Your task to perform on an android device: Add "macbook air" to the cart on amazon, then select checkout. Image 0: 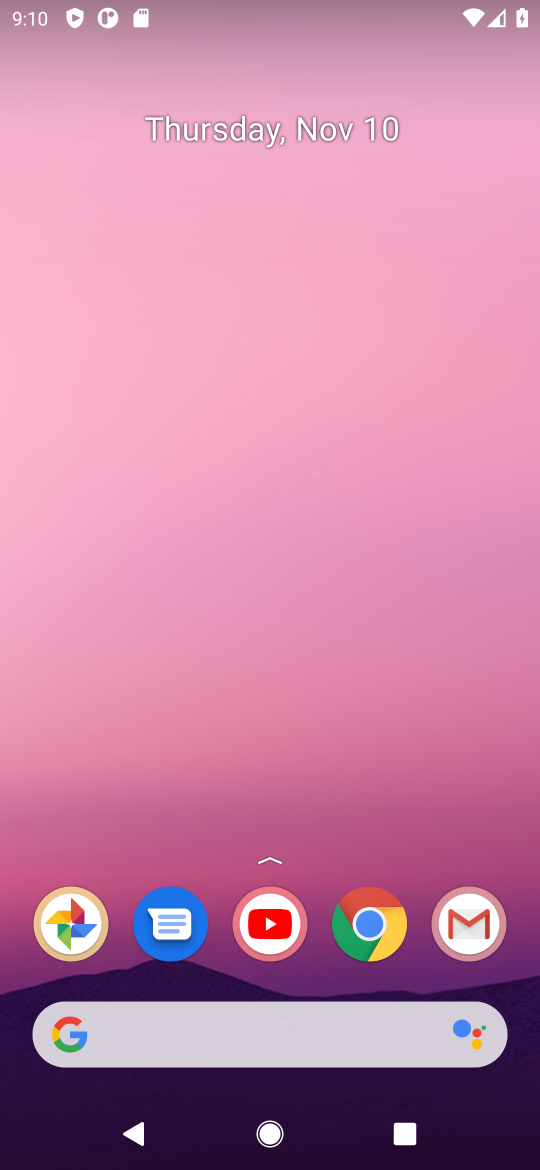
Step 0: click (366, 920)
Your task to perform on an android device: Add "macbook air" to the cart on amazon, then select checkout. Image 1: 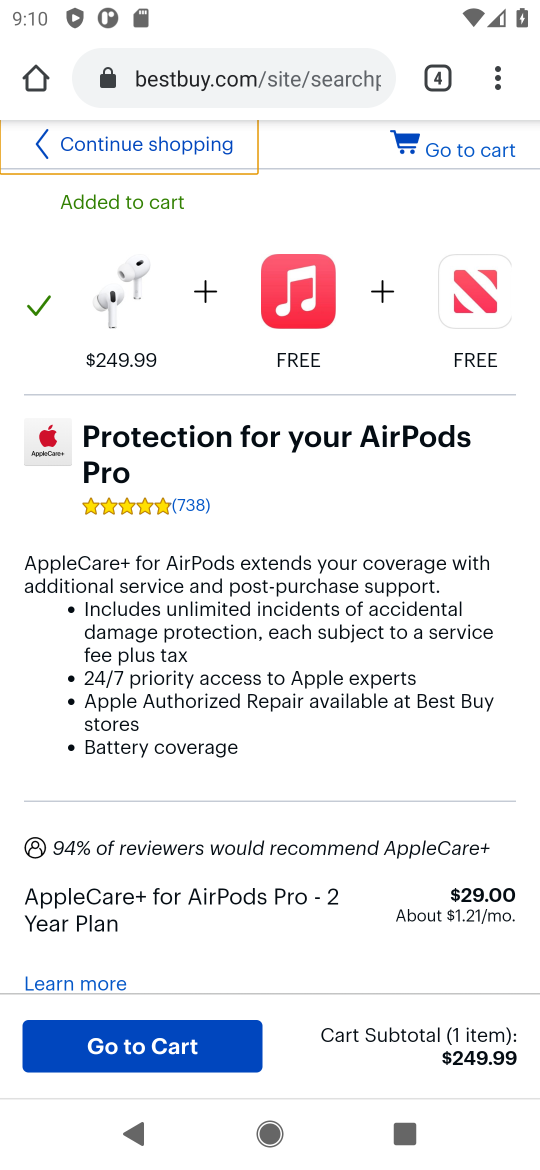
Step 1: click (191, 87)
Your task to perform on an android device: Add "macbook air" to the cart on amazon, then select checkout. Image 2: 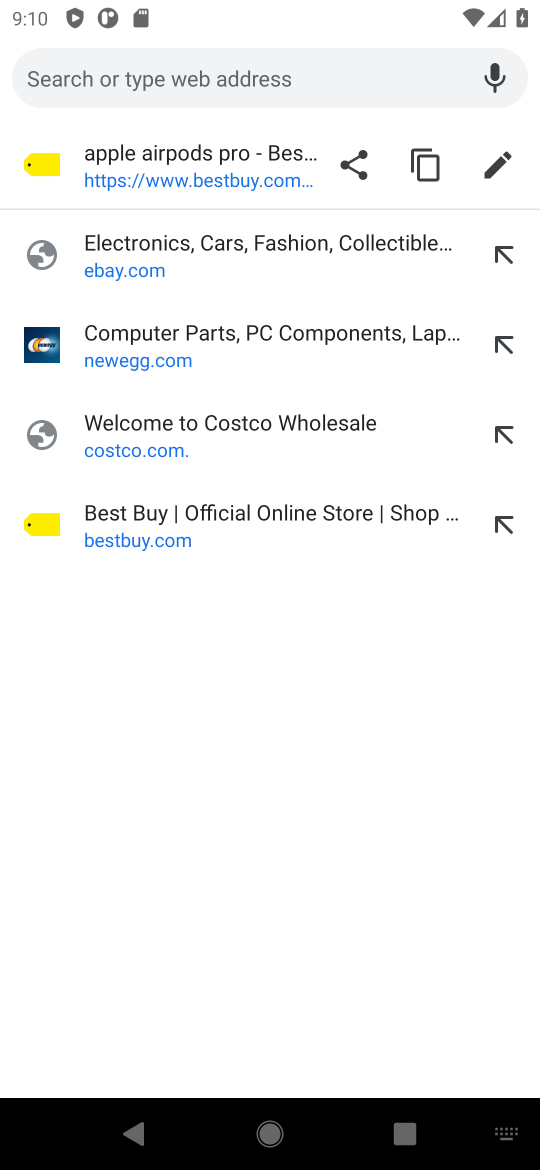
Step 2: type "amazon.com"
Your task to perform on an android device: Add "macbook air" to the cart on amazon, then select checkout. Image 3: 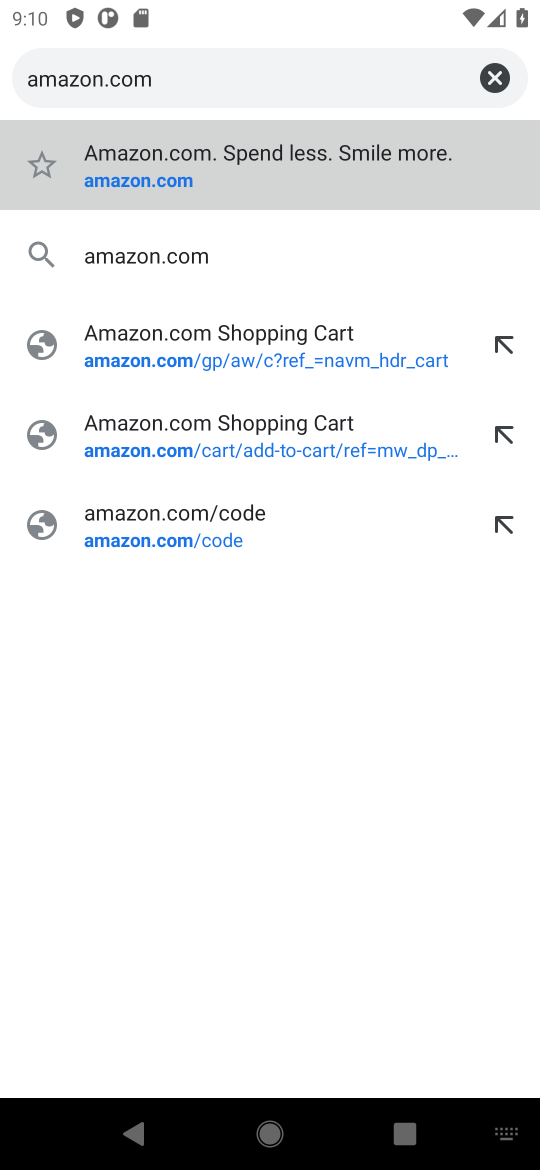
Step 3: click (137, 187)
Your task to perform on an android device: Add "macbook air" to the cart on amazon, then select checkout. Image 4: 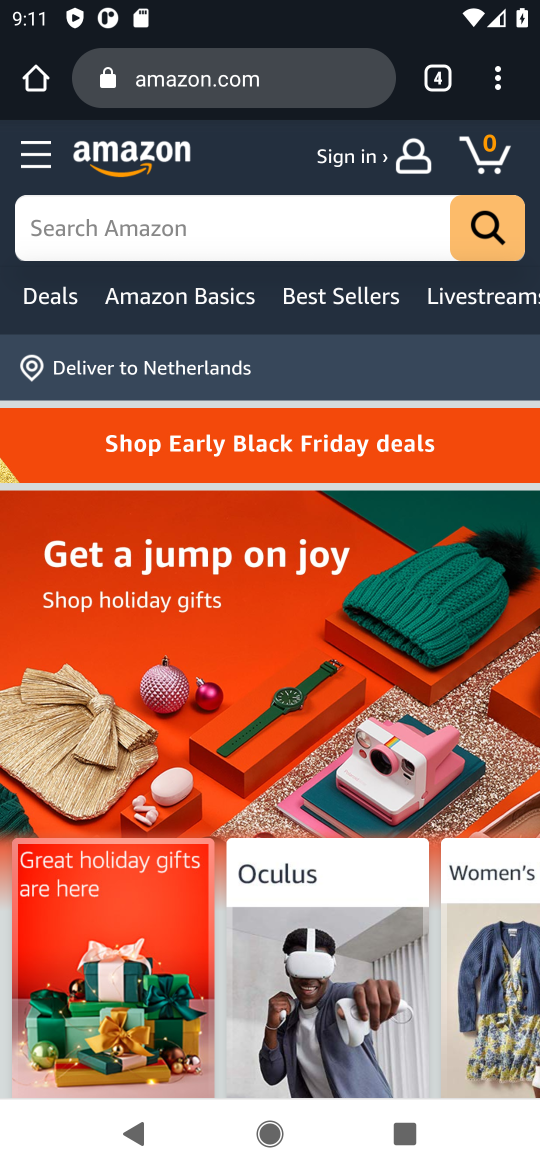
Step 4: click (190, 214)
Your task to perform on an android device: Add "macbook air" to the cart on amazon, then select checkout. Image 5: 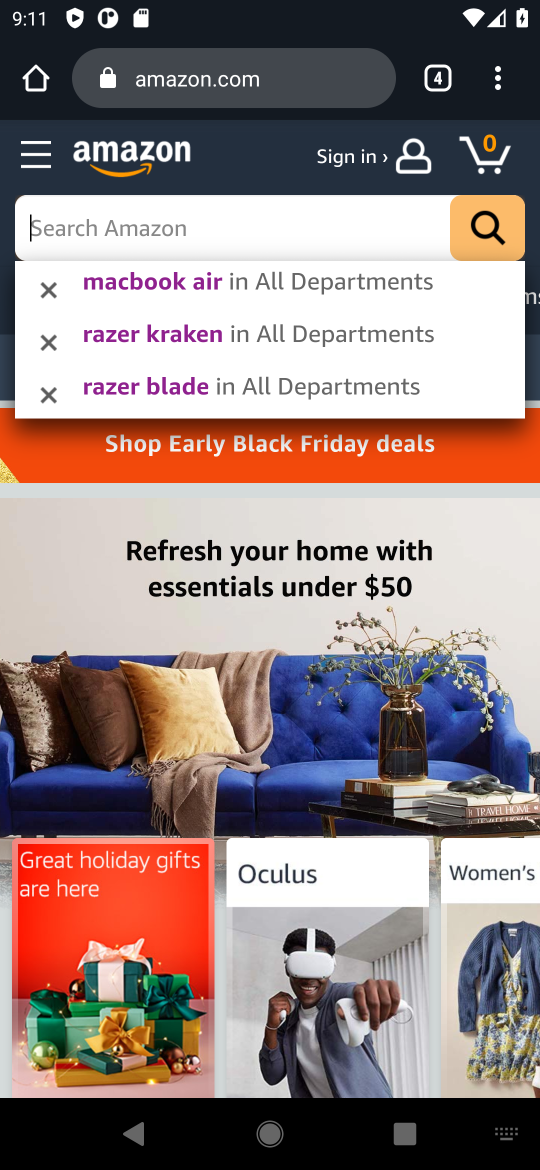
Step 5: type "macbook air"
Your task to perform on an android device: Add "macbook air" to the cart on amazon, then select checkout. Image 6: 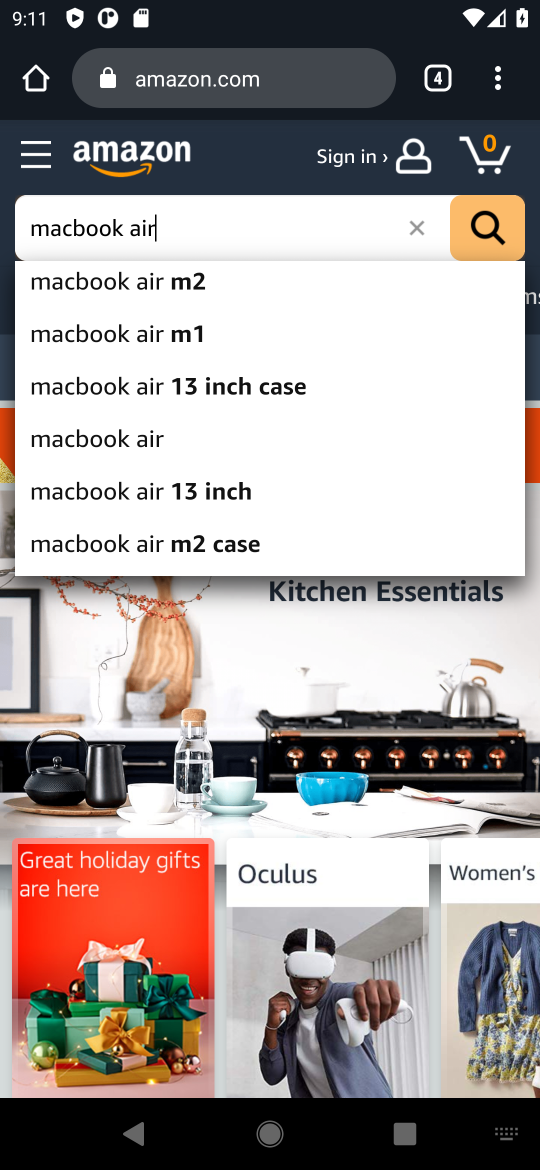
Step 6: click (99, 445)
Your task to perform on an android device: Add "macbook air" to the cart on amazon, then select checkout. Image 7: 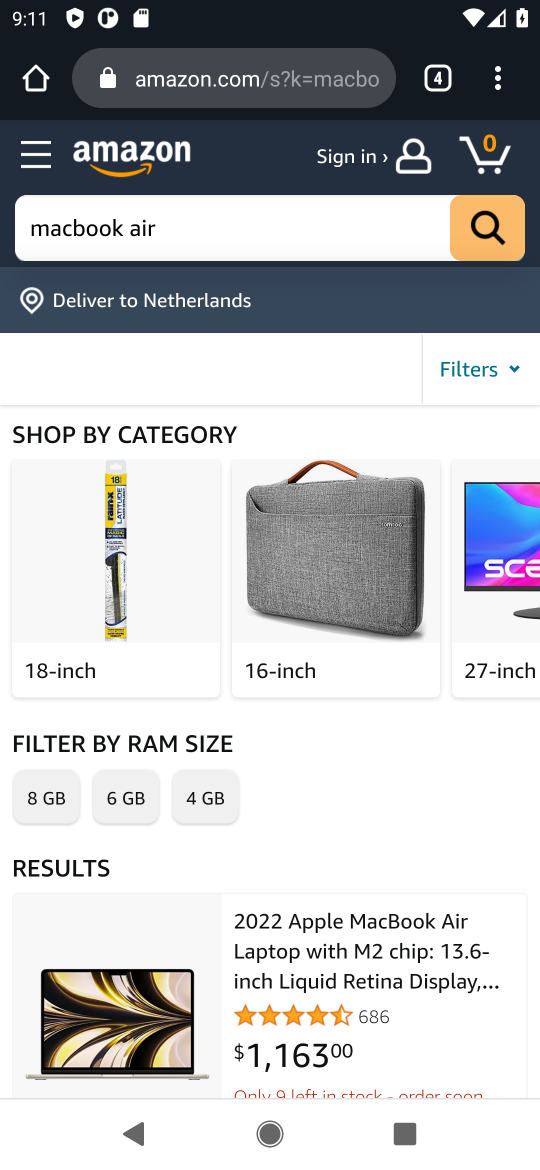
Step 7: drag from (270, 879) to (276, 513)
Your task to perform on an android device: Add "macbook air" to the cart on amazon, then select checkout. Image 8: 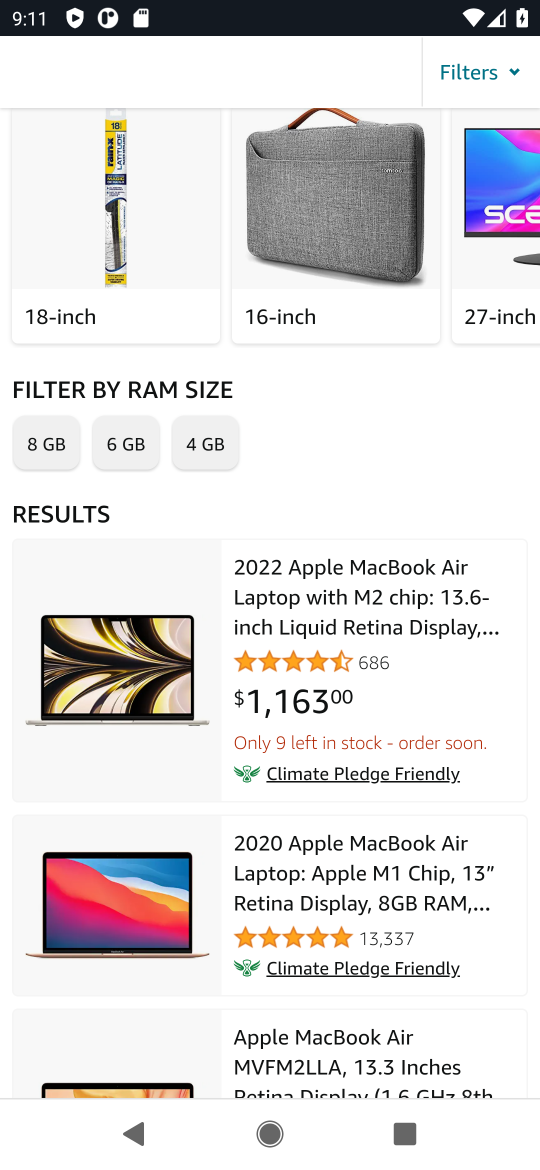
Step 8: drag from (210, 837) to (221, 501)
Your task to perform on an android device: Add "macbook air" to the cart on amazon, then select checkout. Image 9: 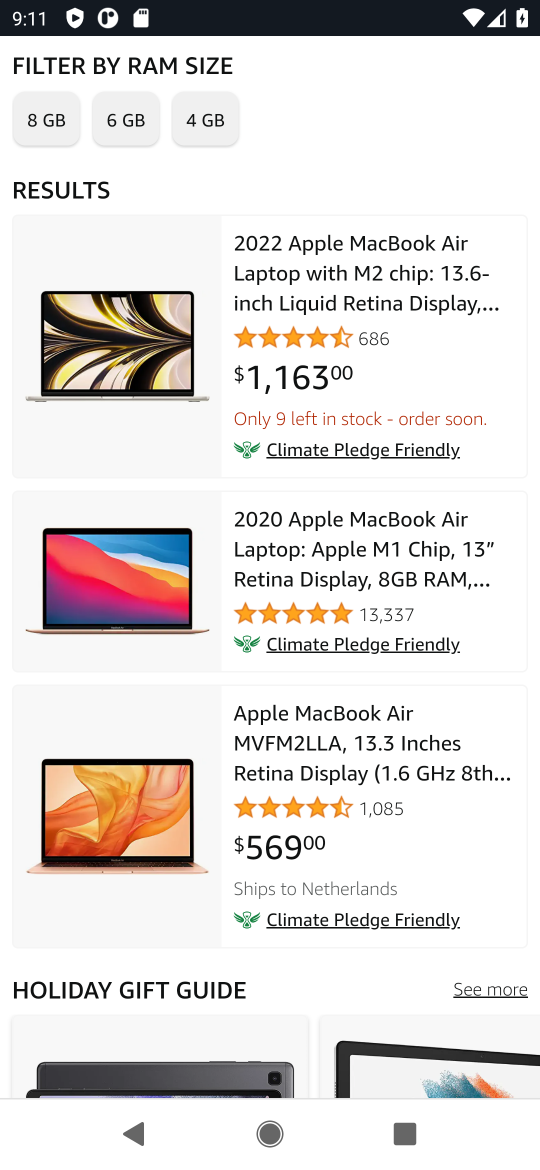
Step 9: drag from (181, 844) to (176, 436)
Your task to perform on an android device: Add "macbook air" to the cart on amazon, then select checkout. Image 10: 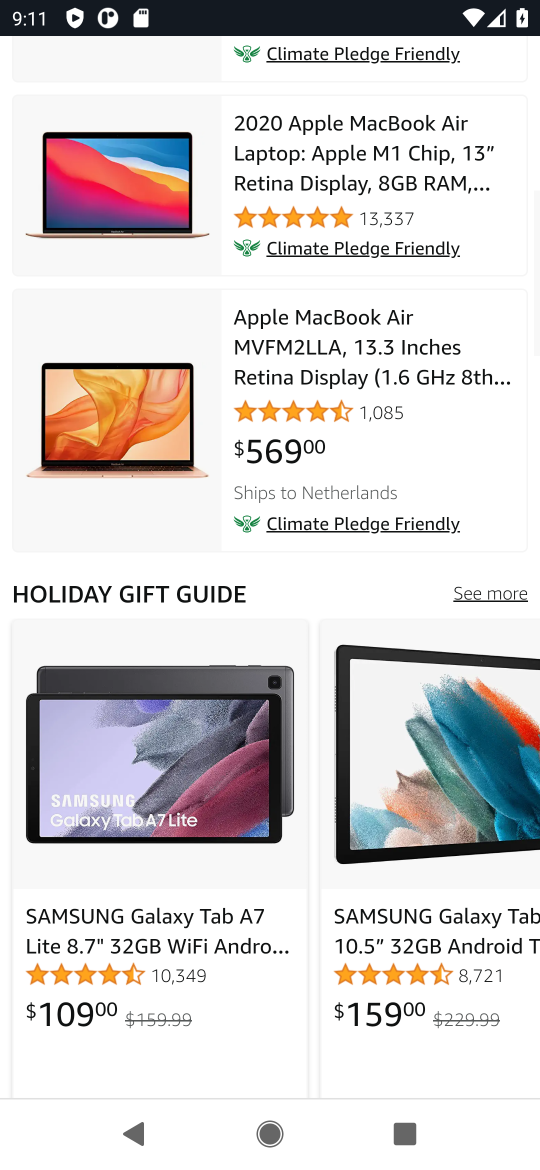
Step 10: drag from (180, 897) to (210, 417)
Your task to perform on an android device: Add "macbook air" to the cart on amazon, then select checkout. Image 11: 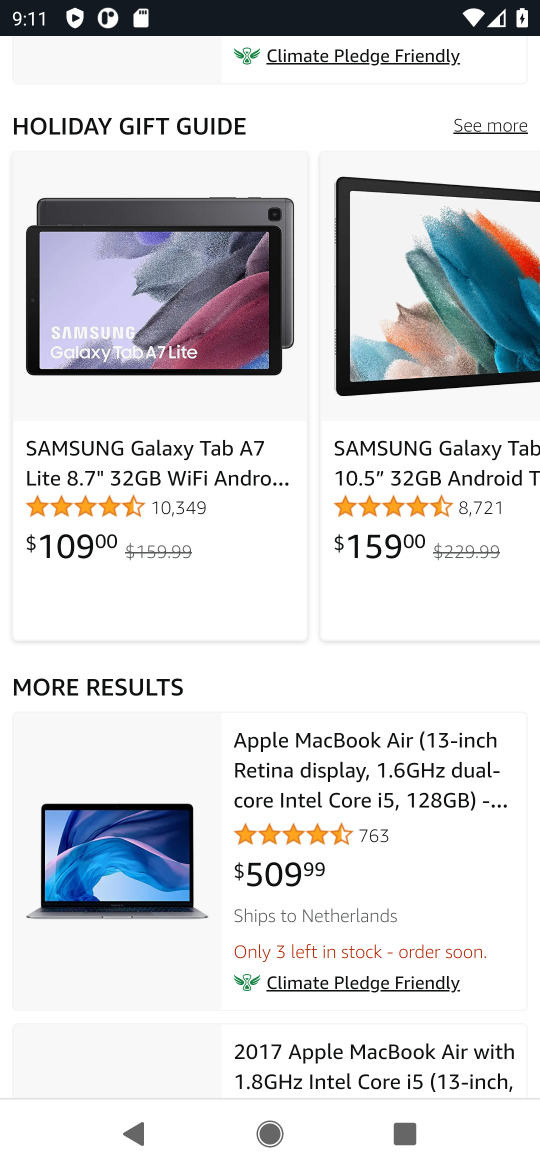
Step 11: click (206, 851)
Your task to perform on an android device: Add "macbook air" to the cart on amazon, then select checkout. Image 12: 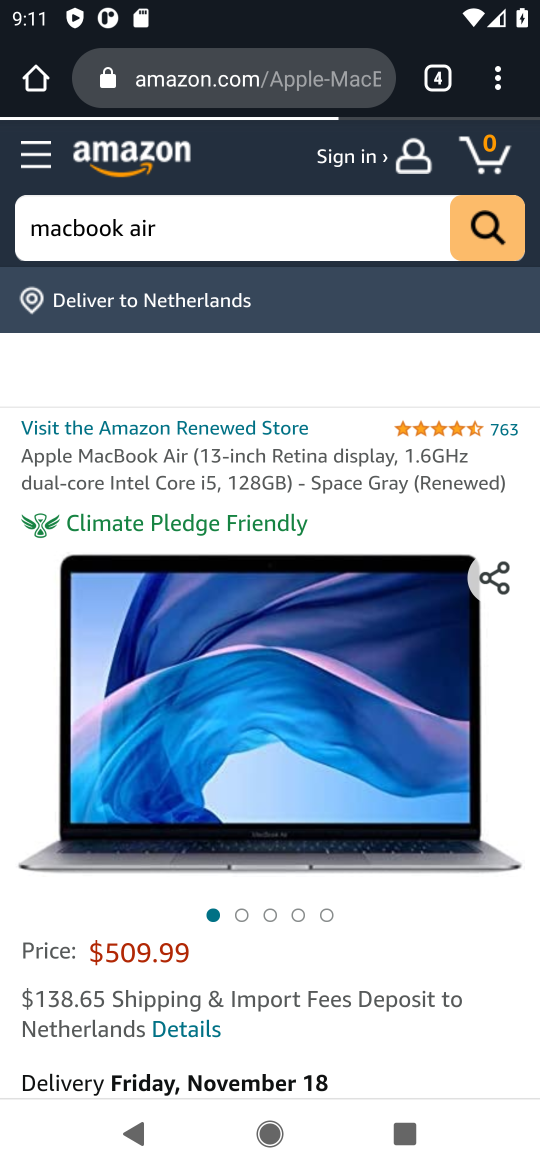
Step 12: drag from (209, 863) to (168, 340)
Your task to perform on an android device: Add "macbook air" to the cart on amazon, then select checkout. Image 13: 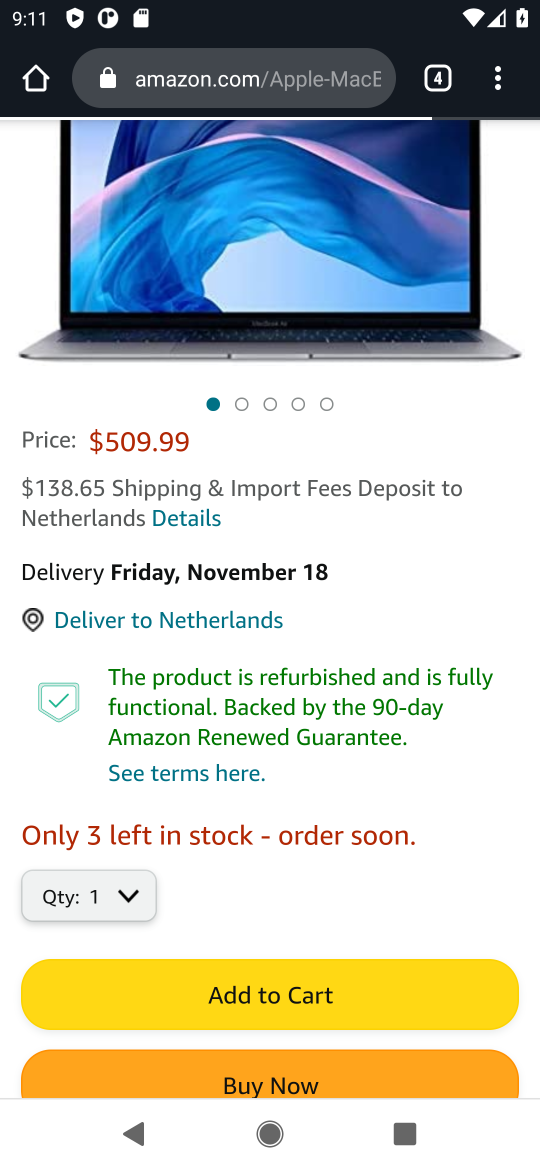
Step 13: drag from (218, 823) to (245, 434)
Your task to perform on an android device: Add "macbook air" to the cart on amazon, then select checkout. Image 14: 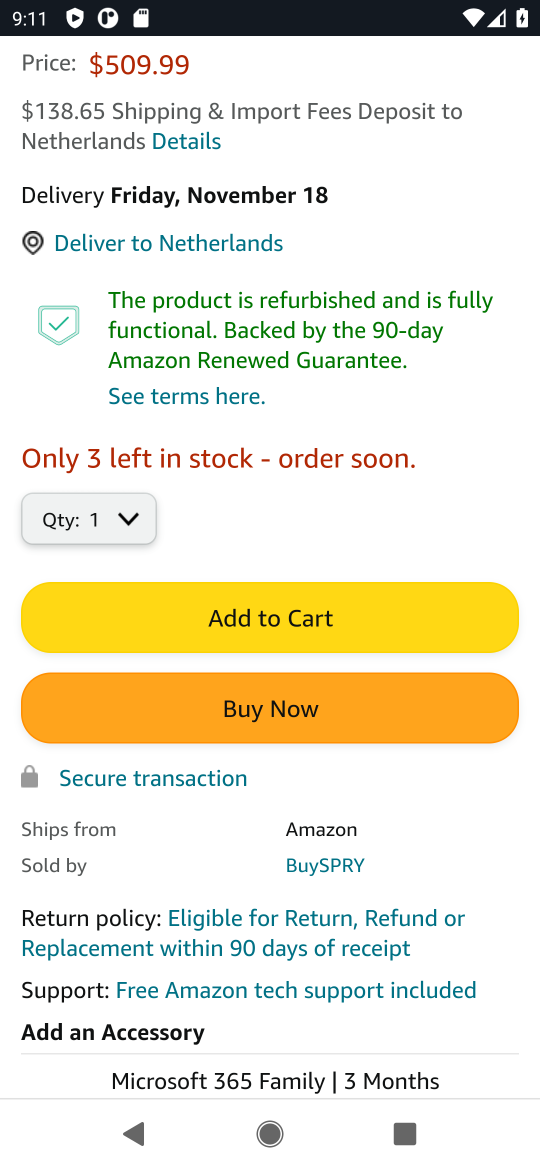
Step 14: click (245, 614)
Your task to perform on an android device: Add "macbook air" to the cart on amazon, then select checkout. Image 15: 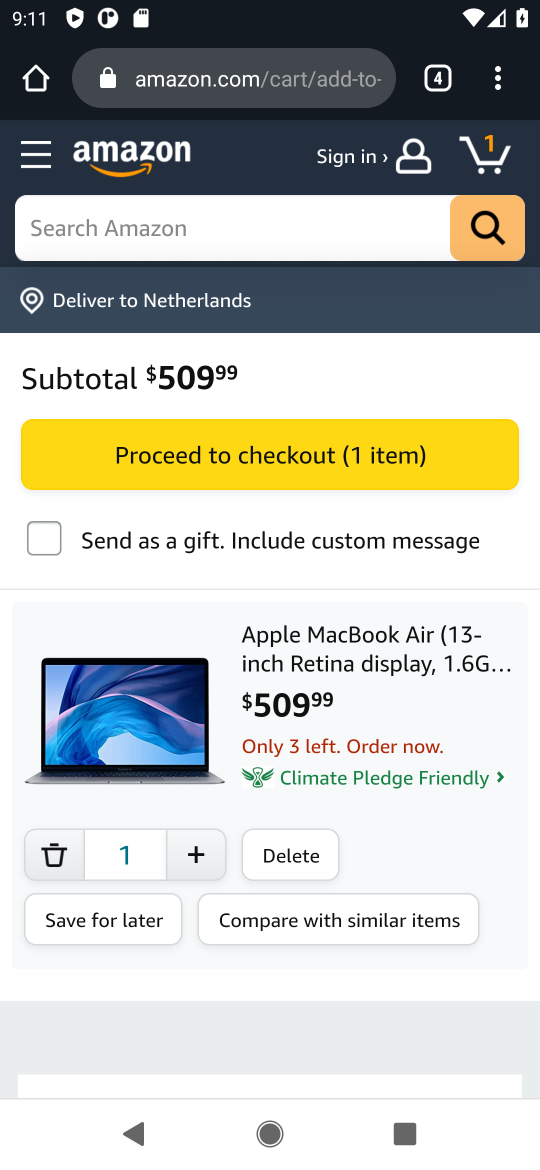
Step 15: click (259, 465)
Your task to perform on an android device: Add "macbook air" to the cart on amazon, then select checkout. Image 16: 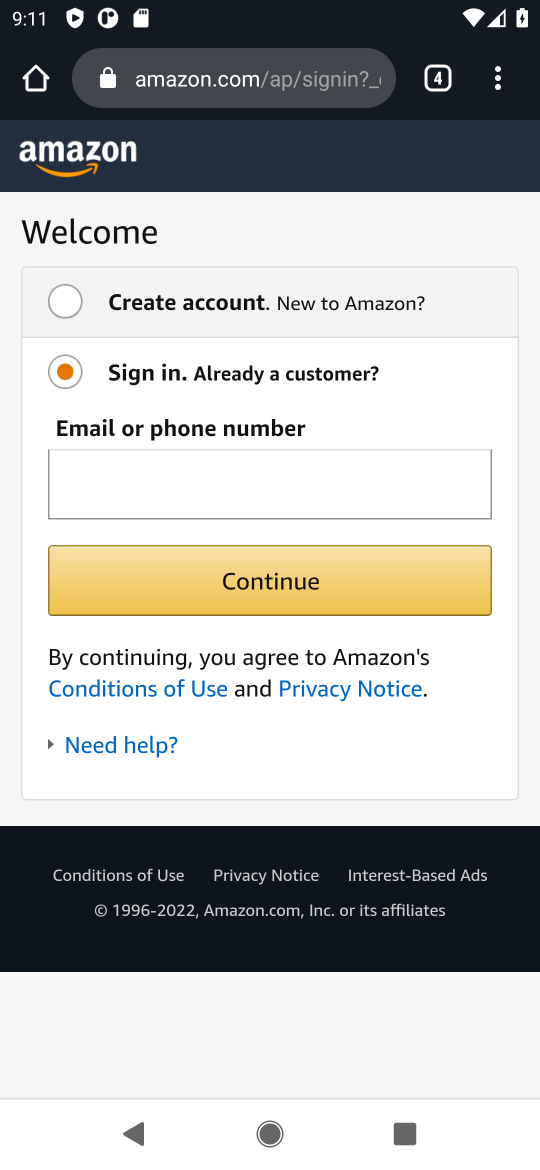
Step 16: task complete